Your task to perform on an android device: create a new album in the google photos Image 0: 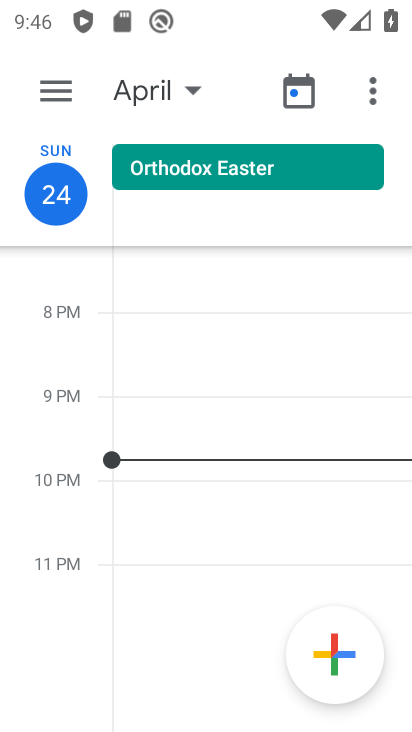
Step 0: press home button
Your task to perform on an android device: create a new album in the google photos Image 1: 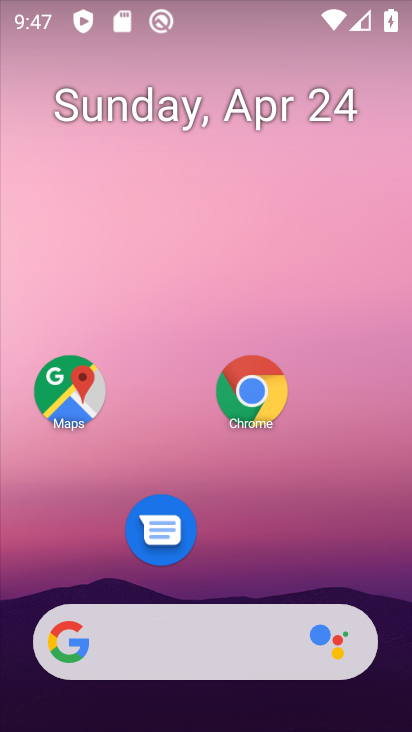
Step 1: drag from (234, 569) to (296, 257)
Your task to perform on an android device: create a new album in the google photos Image 2: 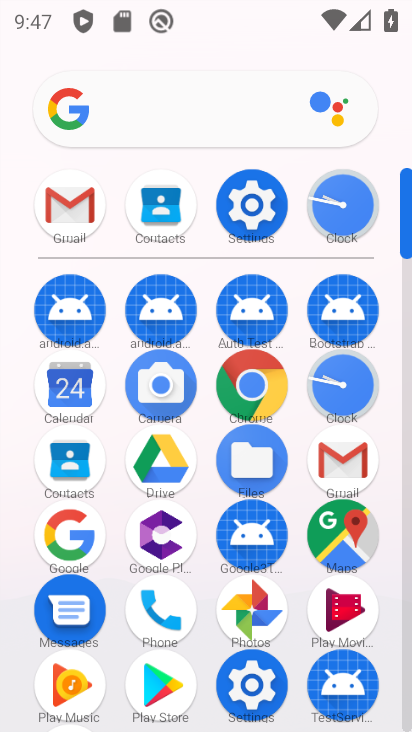
Step 2: click (268, 601)
Your task to perform on an android device: create a new album in the google photos Image 3: 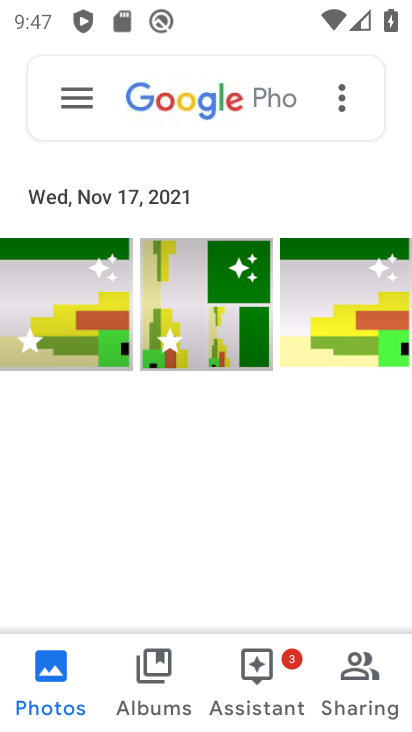
Step 3: click (61, 316)
Your task to perform on an android device: create a new album in the google photos Image 4: 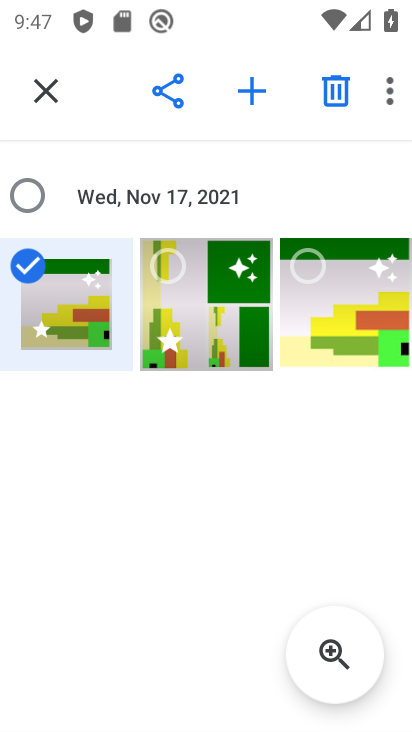
Step 4: click (168, 266)
Your task to perform on an android device: create a new album in the google photos Image 5: 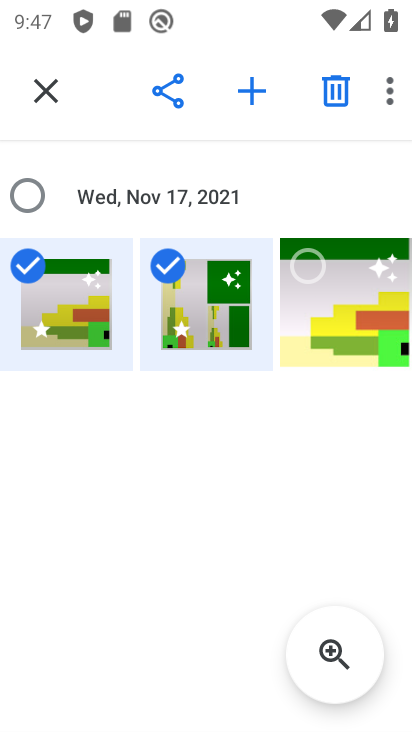
Step 5: click (310, 265)
Your task to perform on an android device: create a new album in the google photos Image 6: 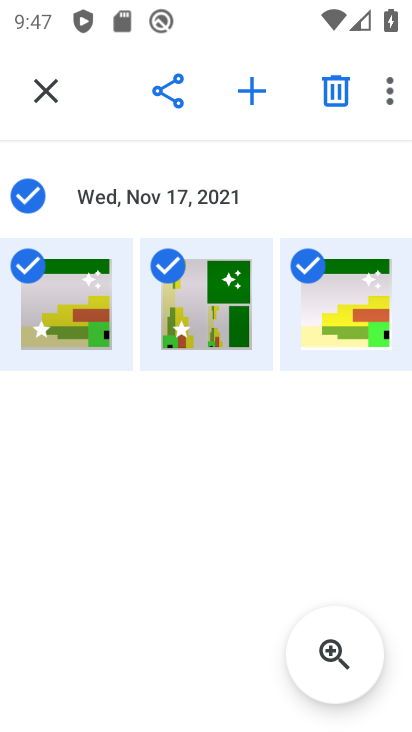
Step 6: click (253, 83)
Your task to perform on an android device: create a new album in the google photos Image 7: 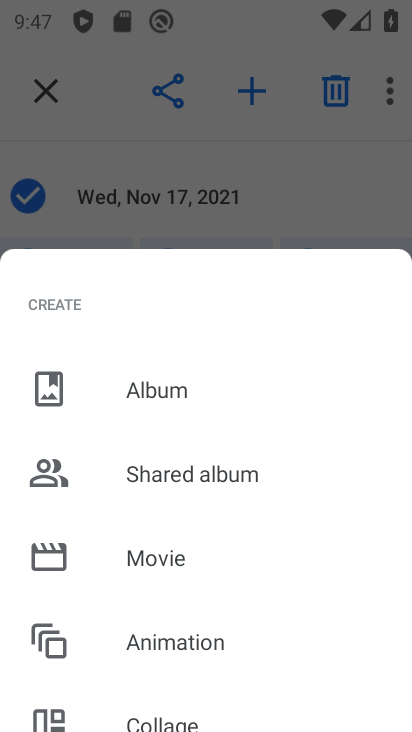
Step 7: click (55, 406)
Your task to perform on an android device: create a new album in the google photos Image 8: 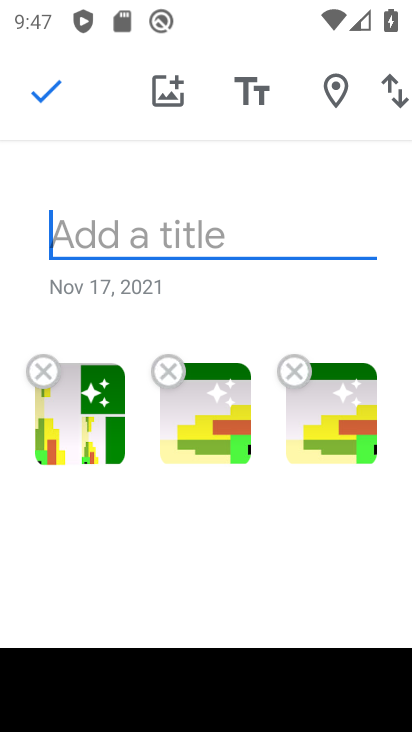
Step 8: type "go"
Your task to perform on an android device: create a new album in the google photos Image 9: 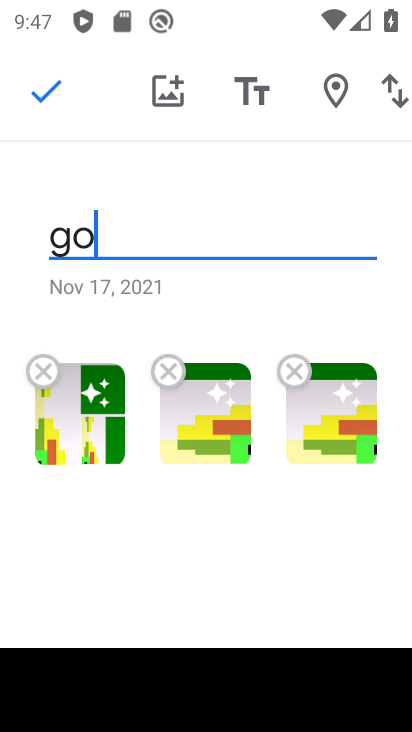
Step 9: click (61, 94)
Your task to perform on an android device: create a new album in the google photos Image 10: 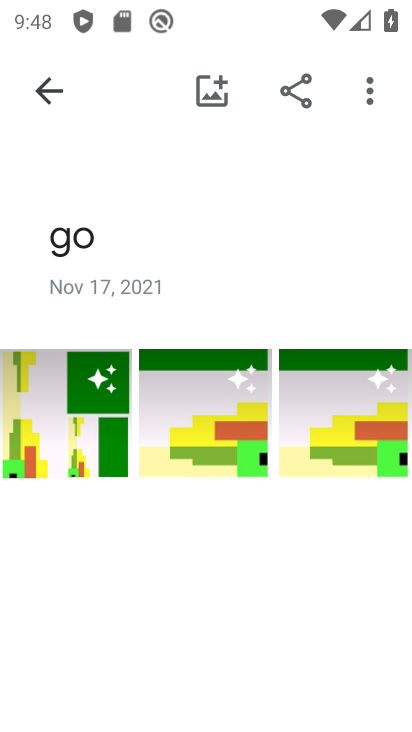
Step 10: task complete